Your task to perform on an android device: set the timer Image 0: 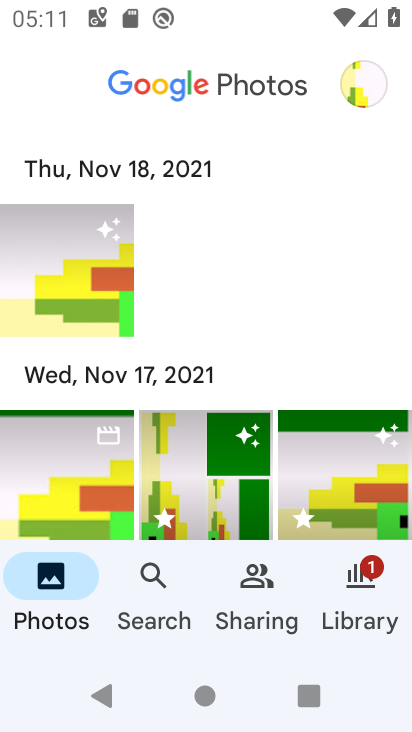
Step 0: press home button
Your task to perform on an android device: set the timer Image 1: 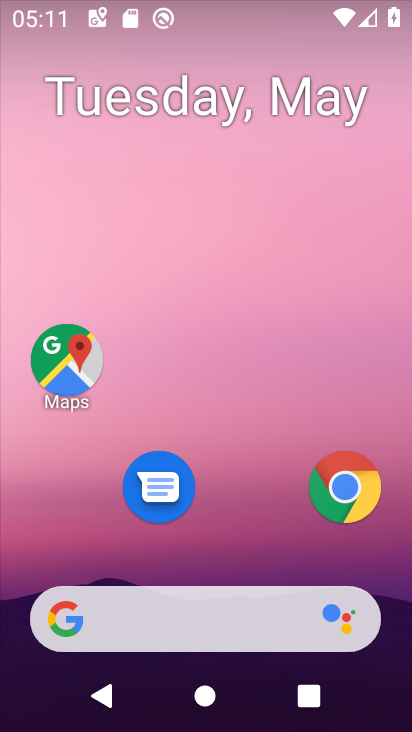
Step 1: drag from (273, 526) to (208, 79)
Your task to perform on an android device: set the timer Image 2: 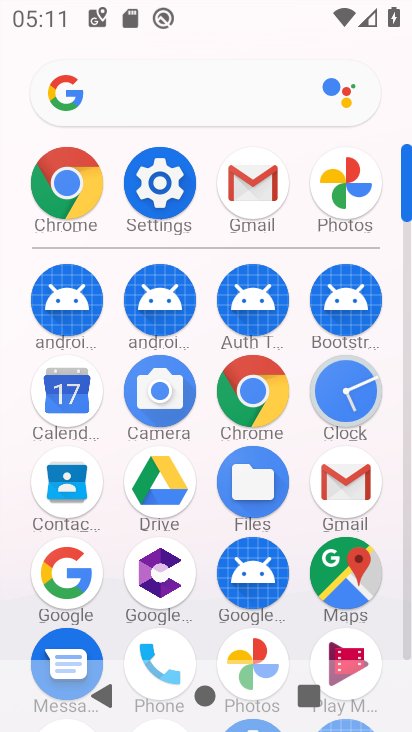
Step 2: click (337, 389)
Your task to perform on an android device: set the timer Image 3: 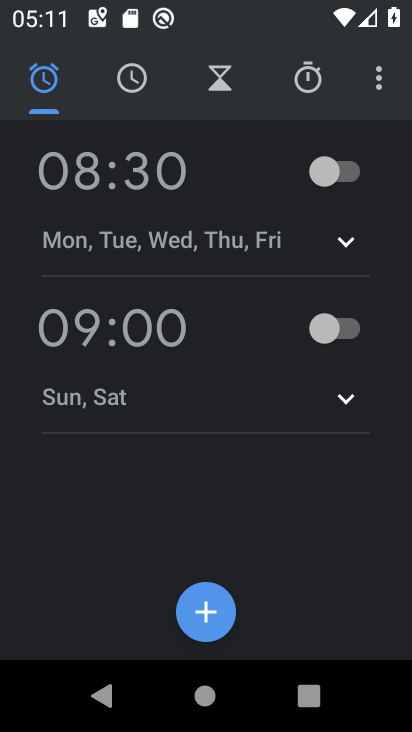
Step 3: click (204, 94)
Your task to perform on an android device: set the timer Image 4: 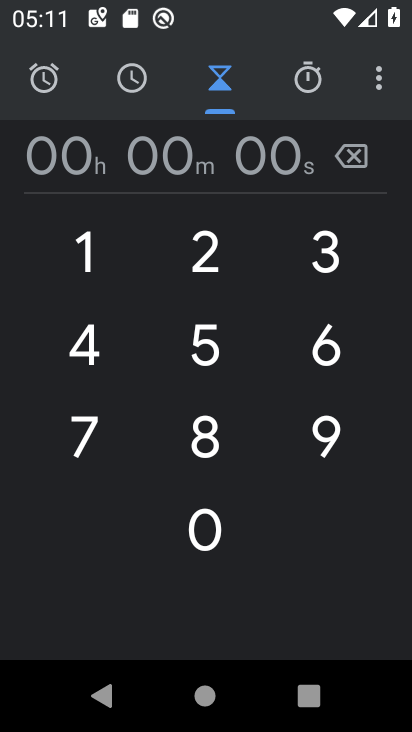
Step 4: task complete